Your task to perform on an android device: Open CNN.com Image 0: 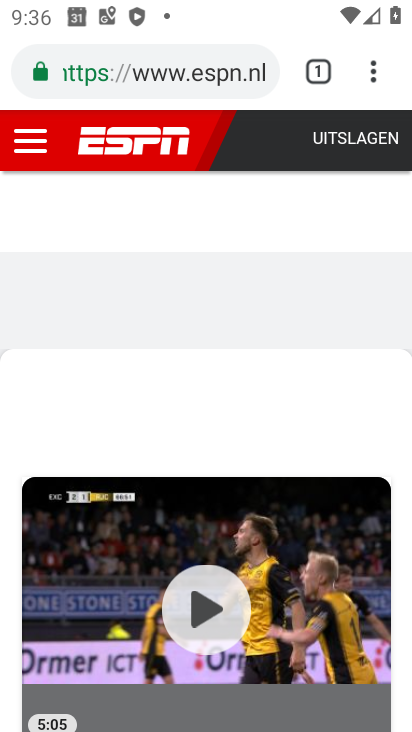
Step 0: click (195, 68)
Your task to perform on an android device: Open CNN.com Image 1: 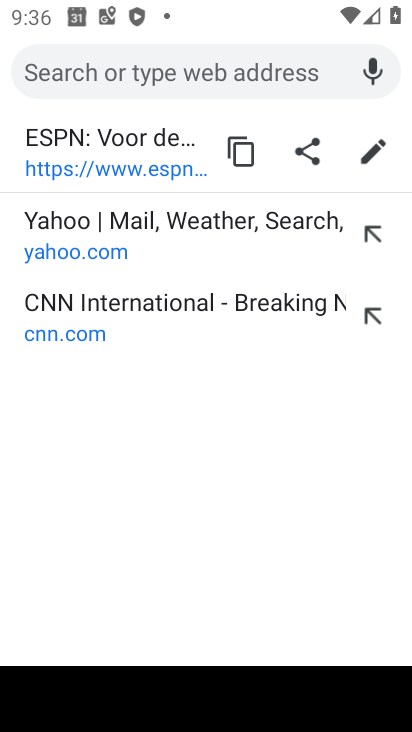
Step 1: click (66, 330)
Your task to perform on an android device: Open CNN.com Image 2: 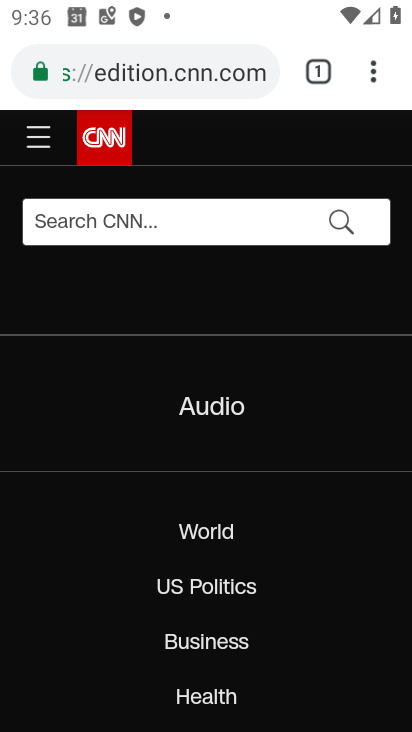
Step 2: task complete